Your task to perform on an android device: Check the news Image 0: 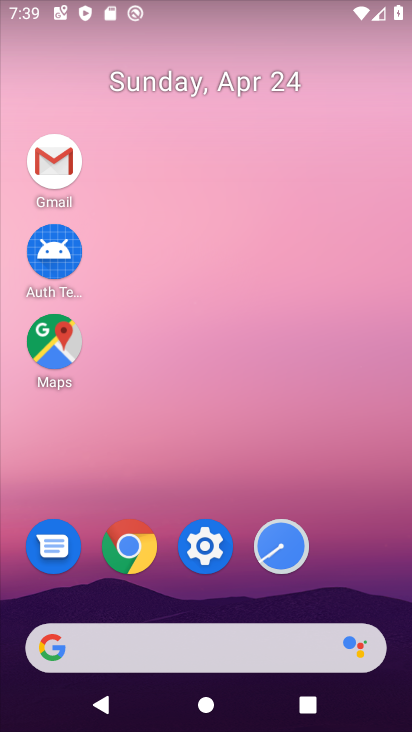
Step 0: drag from (12, 427) to (406, 409)
Your task to perform on an android device: Check the news Image 1: 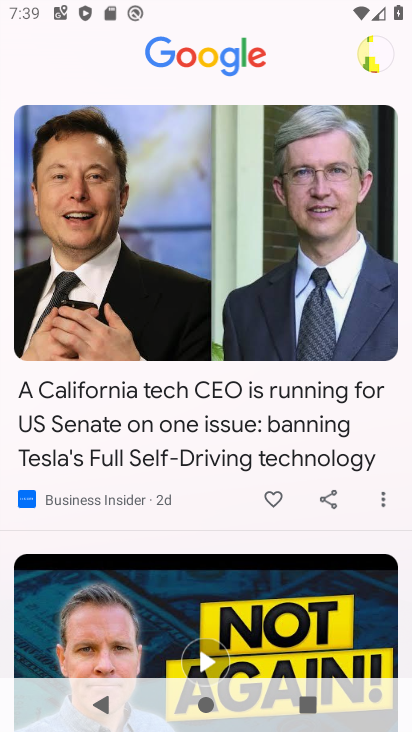
Step 1: task complete